Your task to perform on an android device: toggle pop-ups in chrome Image 0: 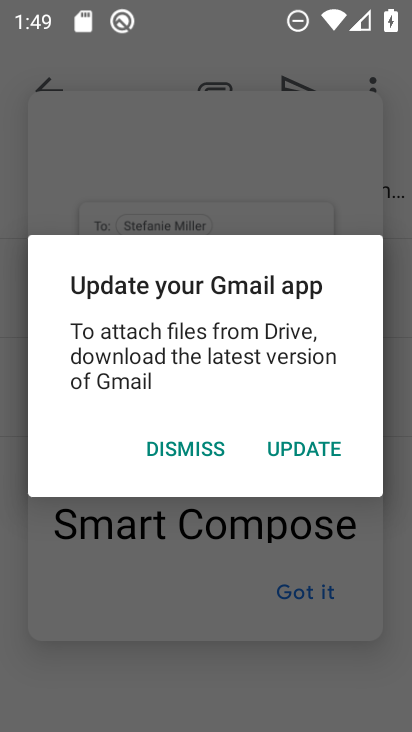
Step 0: press home button
Your task to perform on an android device: toggle pop-ups in chrome Image 1: 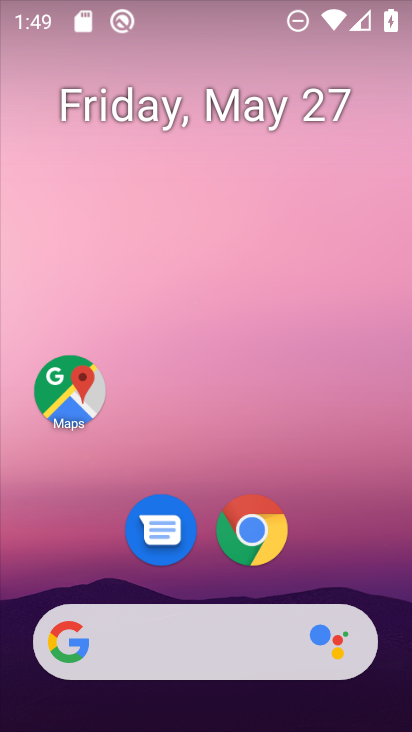
Step 1: click (270, 533)
Your task to perform on an android device: toggle pop-ups in chrome Image 2: 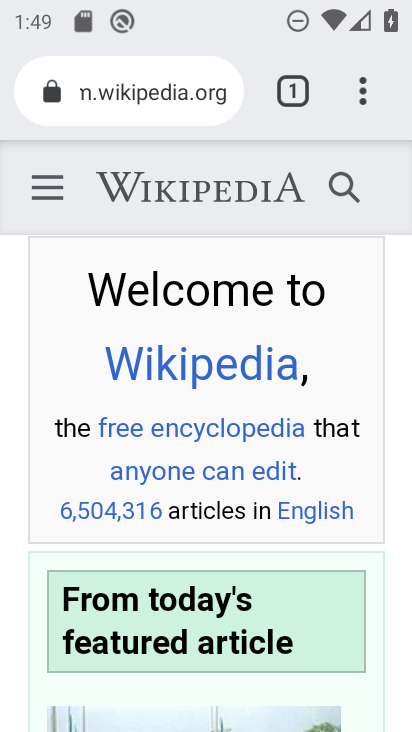
Step 2: click (357, 98)
Your task to perform on an android device: toggle pop-ups in chrome Image 3: 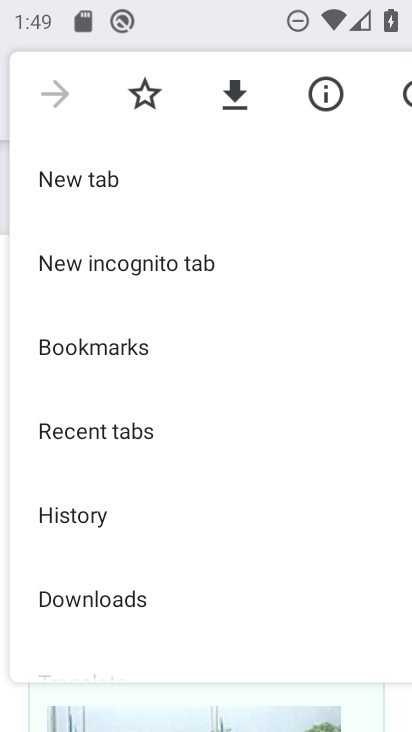
Step 3: drag from (218, 579) to (166, 240)
Your task to perform on an android device: toggle pop-ups in chrome Image 4: 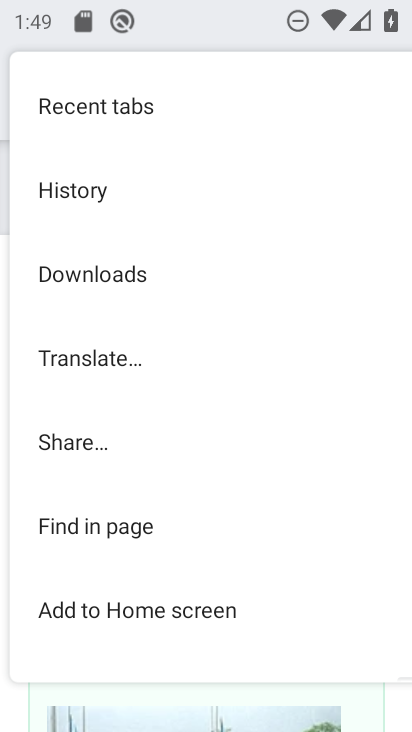
Step 4: drag from (217, 492) to (236, 248)
Your task to perform on an android device: toggle pop-ups in chrome Image 5: 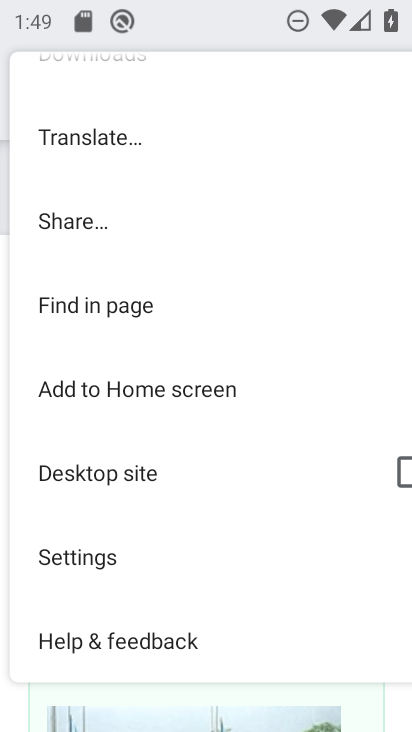
Step 5: click (87, 553)
Your task to perform on an android device: toggle pop-ups in chrome Image 6: 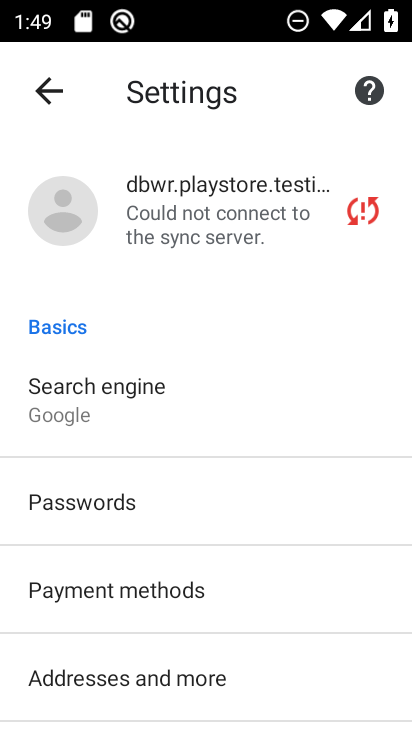
Step 6: drag from (261, 654) to (251, 195)
Your task to perform on an android device: toggle pop-ups in chrome Image 7: 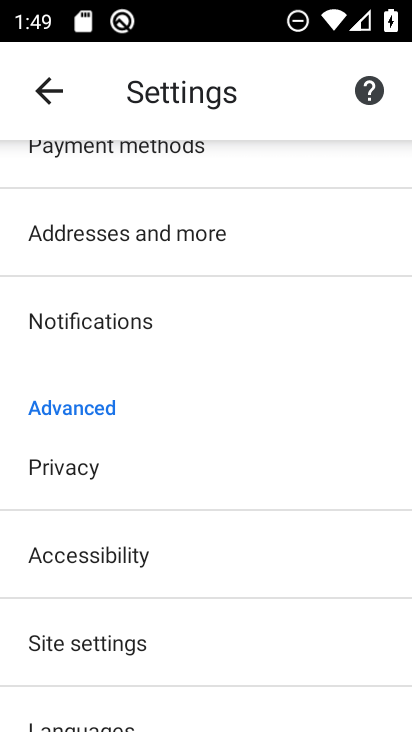
Step 7: click (109, 648)
Your task to perform on an android device: toggle pop-ups in chrome Image 8: 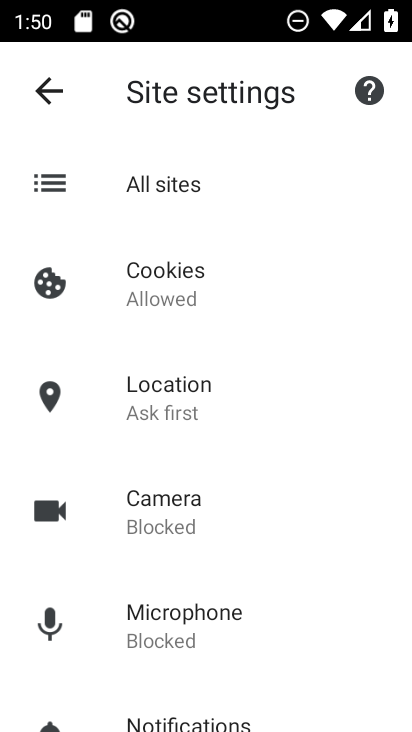
Step 8: drag from (273, 673) to (322, 313)
Your task to perform on an android device: toggle pop-ups in chrome Image 9: 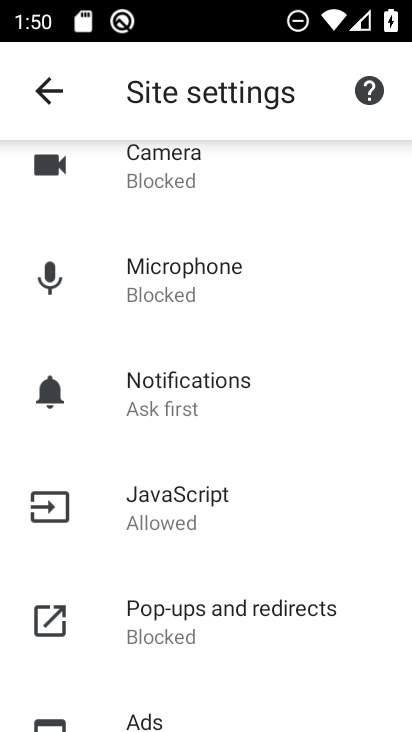
Step 9: click (231, 624)
Your task to perform on an android device: toggle pop-ups in chrome Image 10: 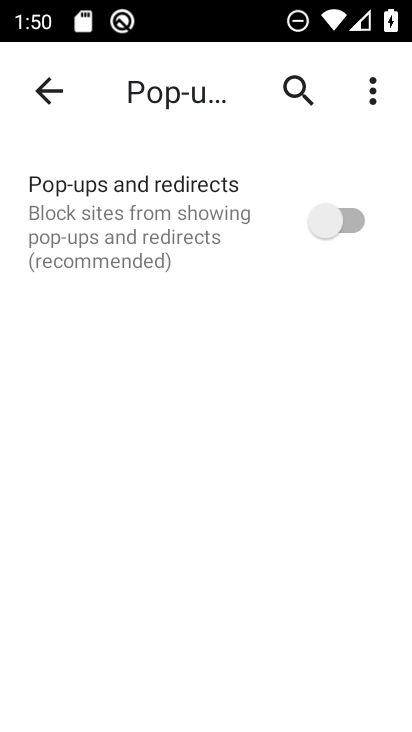
Step 10: click (343, 219)
Your task to perform on an android device: toggle pop-ups in chrome Image 11: 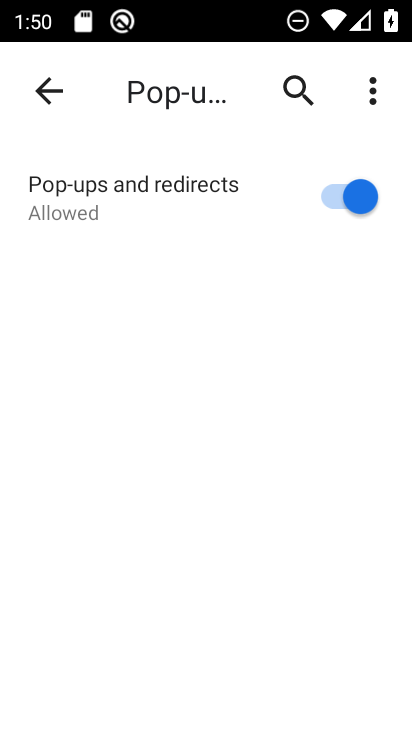
Step 11: task complete